Your task to perform on an android device: turn off notifications in google photos Image 0: 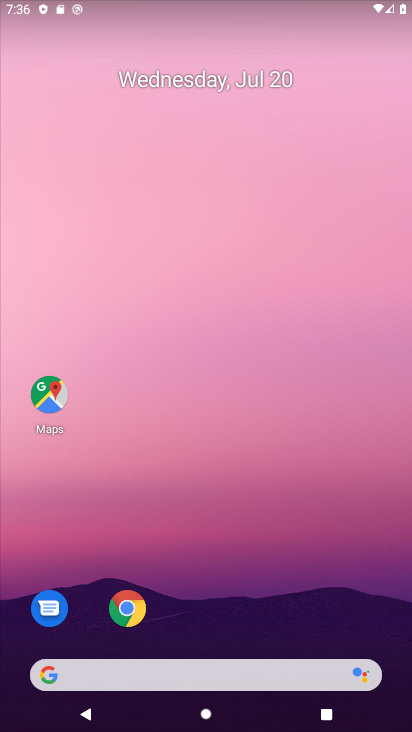
Step 0: drag from (322, 643) to (279, 59)
Your task to perform on an android device: turn off notifications in google photos Image 1: 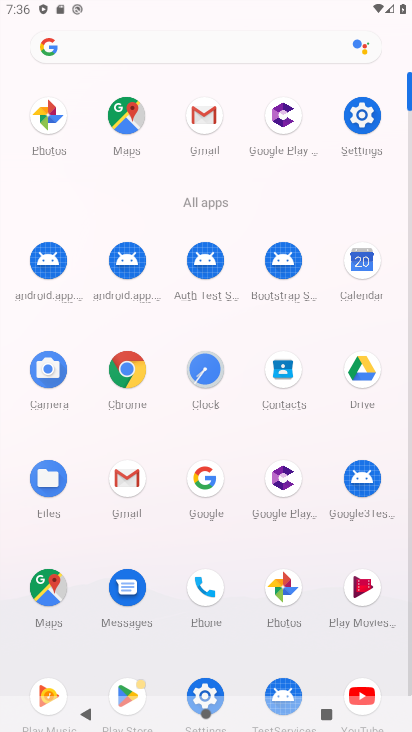
Step 1: click (281, 580)
Your task to perform on an android device: turn off notifications in google photos Image 2: 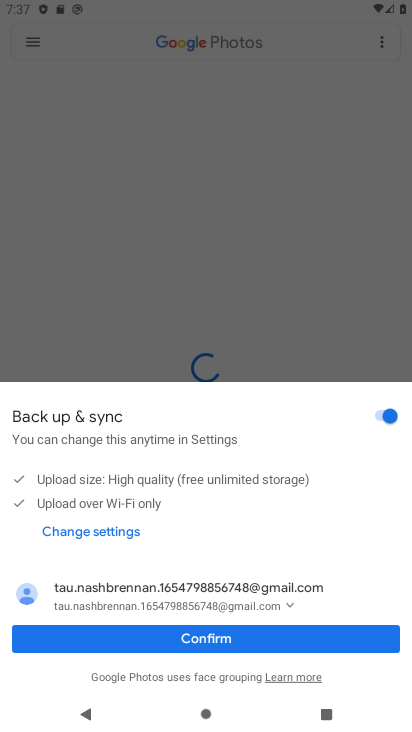
Step 2: click (228, 628)
Your task to perform on an android device: turn off notifications in google photos Image 3: 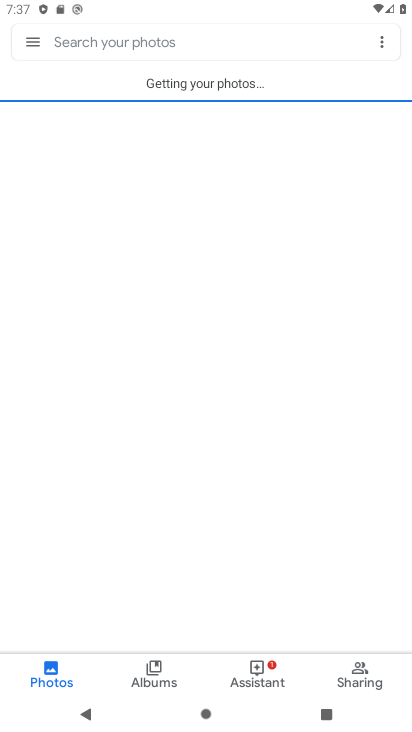
Step 3: click (28, 33)
Your task to perform on an android device: turn off notifications in google photos Image 4: 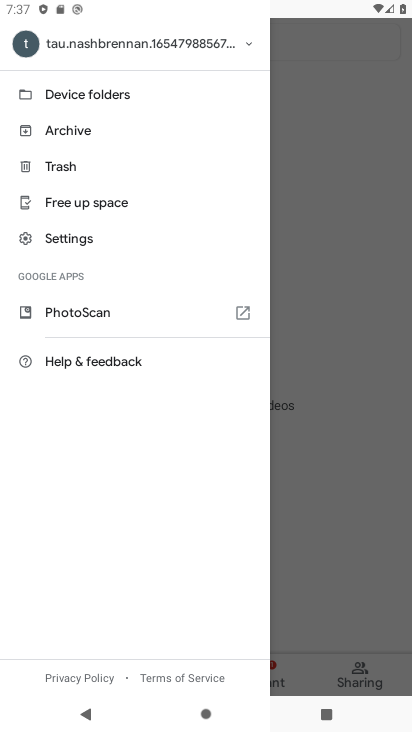
Step 4: click (74, 246)
Your task to perform on an android device: turn off notifications in google photos Image 5: 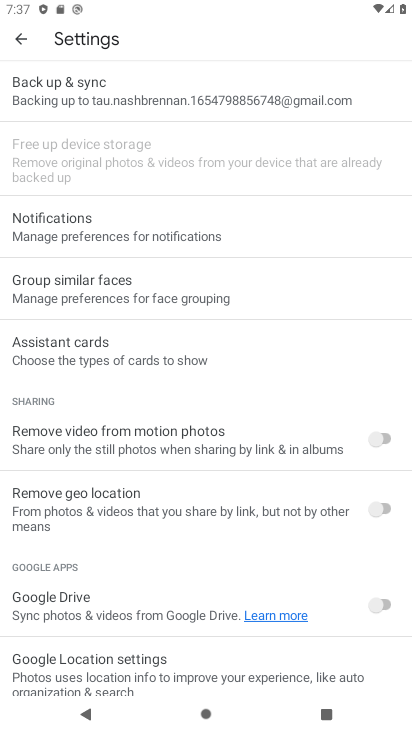
Step 5: click (99, 238)
Your task to perform on an android device: turn off notifications in google photos Image 6: 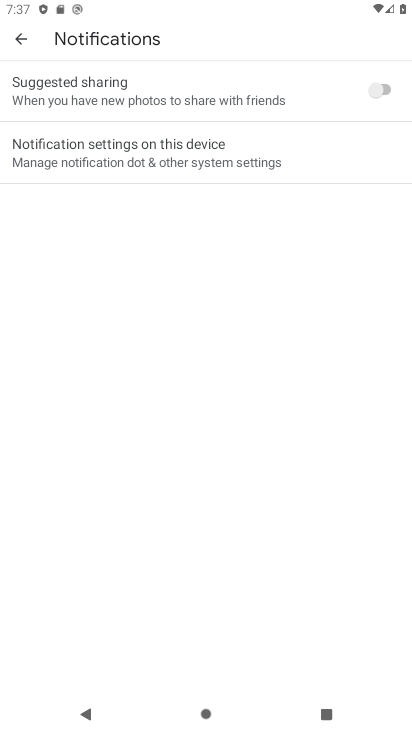
Step 6: click (148, 151)
Your task to perform on an android device: turn off notifications in google photos Image 7: 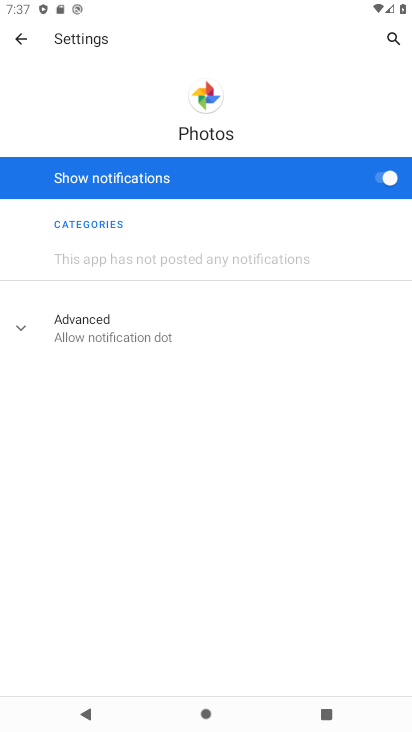
Step 7: click (366, 173)
Your task to perform on an android device: turn off notifications in google photos Image 8: 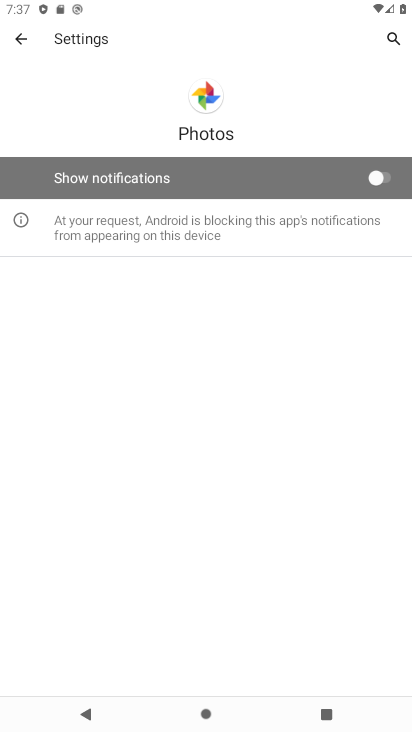
Step 8: task complete